Your task to perform on an android device: turn on notifications settings in the gmail app Image 0: 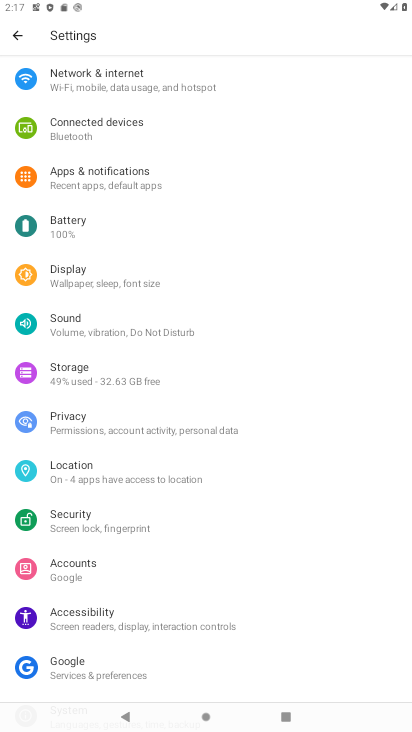
Step 0: press home button
Your task to perform on an android device: turn on notifications settings in the gmail app Image 1: 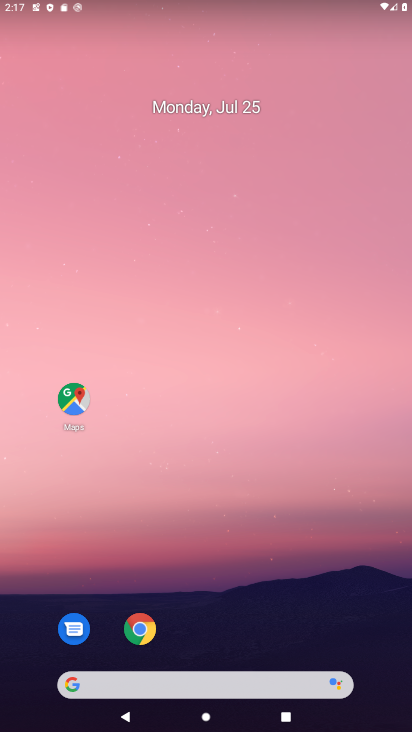
Step 1: drag from (16, 710) to (150, 250)
Your task to perform on an android device: turn on notifications settings in the gmail app Image 2: 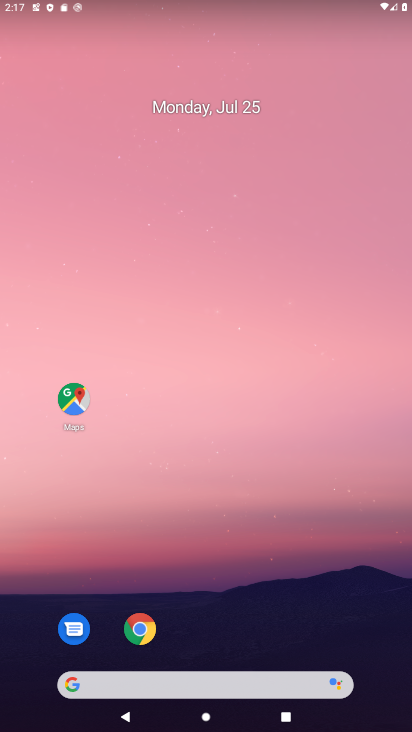
Step 2: drag from (35, 686) to (315, 12)
Your task to perform on an android device: turn on notifications settings in the gmail app Image 3: 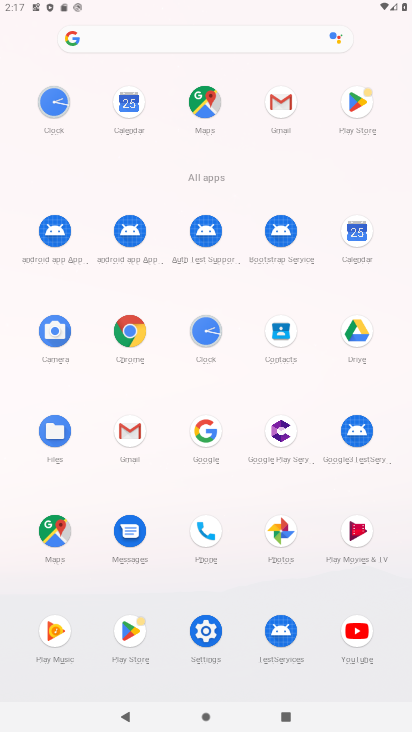
Step 3: click (137, 436)
Your task to perform on an android device: turn on notifications settings in the gmail app Image 4: 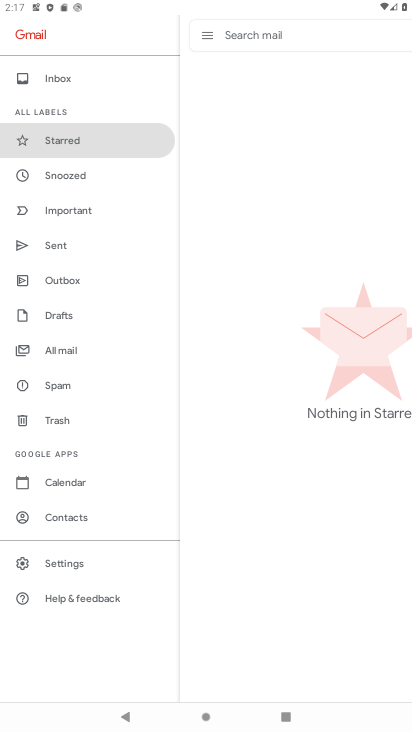
Step 4: click (63, 556)
Your task to perform on an android device: turn on notifications settings in the gmail app Image 5: 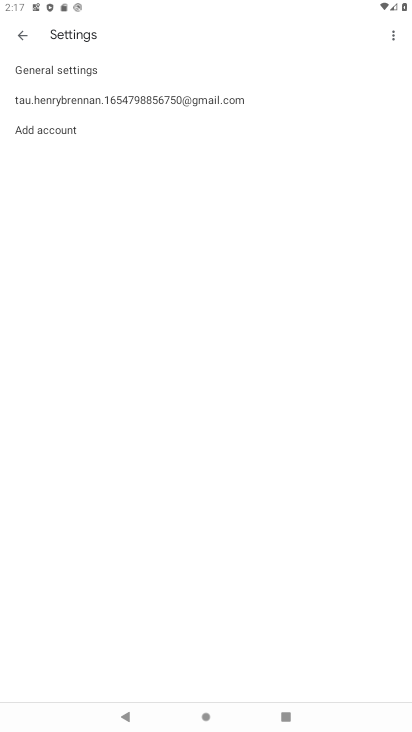
Step 5: click (61, 98)
Your task to perform on an android device: turn on notifications settings in the gmail app Image 6: 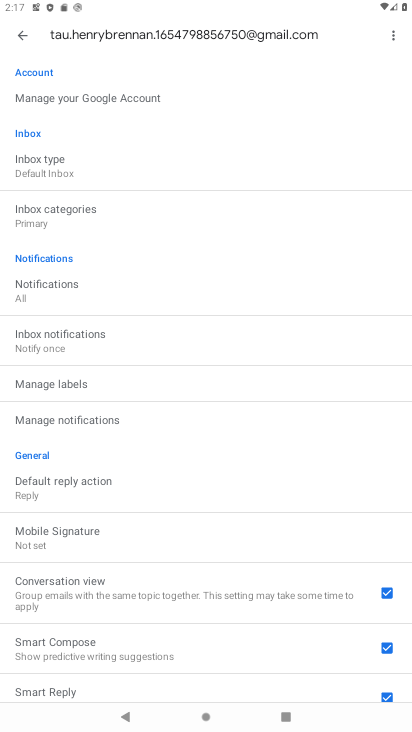
Step 6: click (50, 285)
Your task to perform on an android device: turn on notifications settings in the gmail app Image 7: 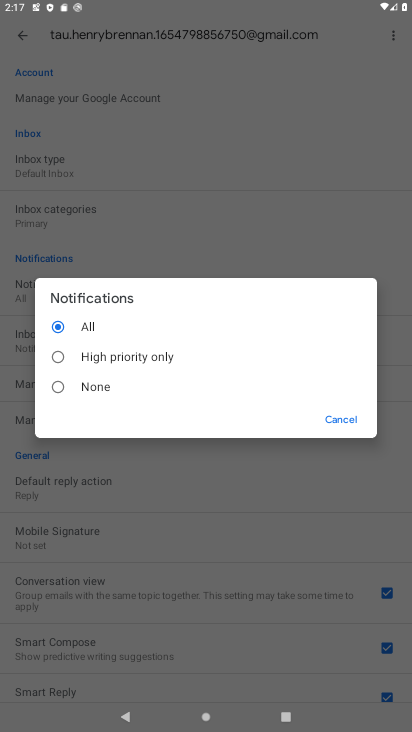
Step 7: click (332, 421)
Your task to perform on an android device: turn on notifications settings in the gmail app Image 8: 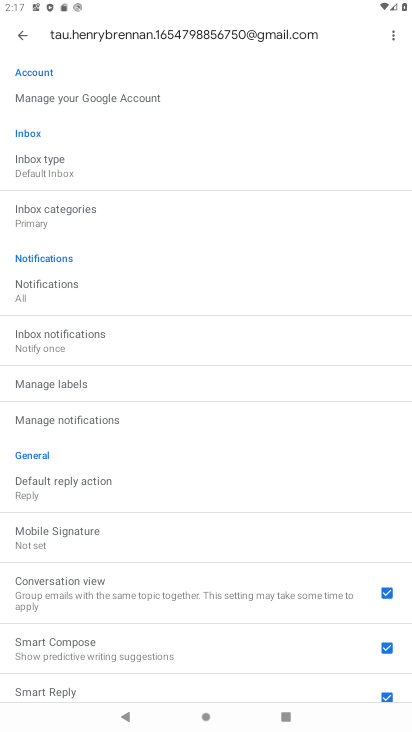
Step 8: click (90, 419)
Your task to perform on an android device: turn on notifications settings in the gmail app Image 9: 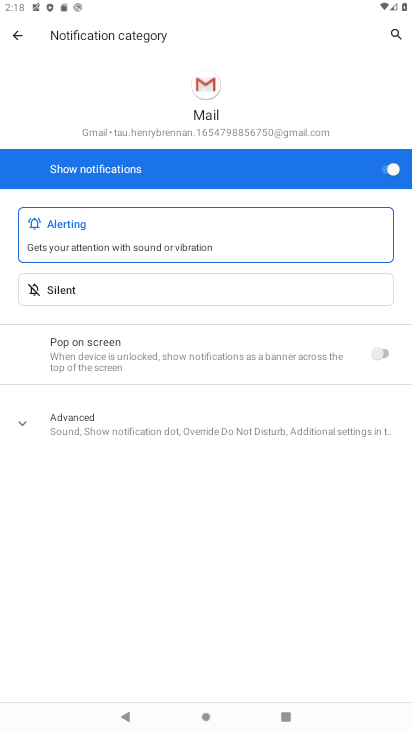
Step 9: task complete